Your task to perform on an android device: see creations saved in the google photos Image 0: 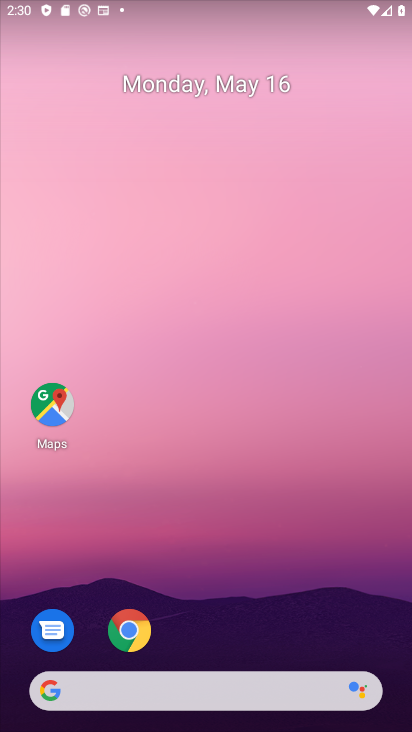
Step 0: drag from (233, 636) to (289, 22)
Your task to perform on an android device: see creations saved in the google photos Image 1: 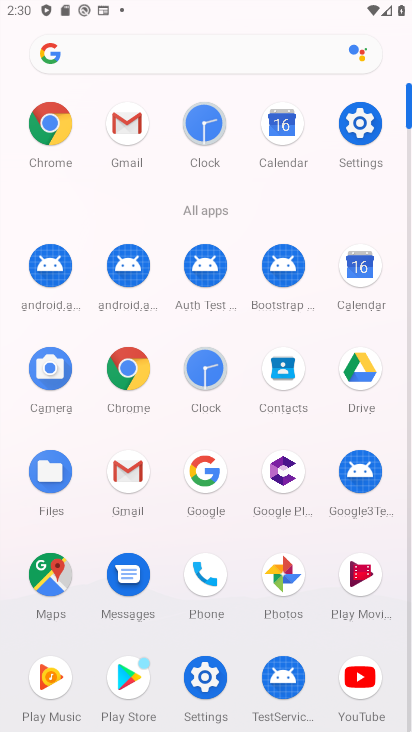
Step 1: click (277, 568)
Your task to perform on an android device: see creations saved in the google photos Image 2: 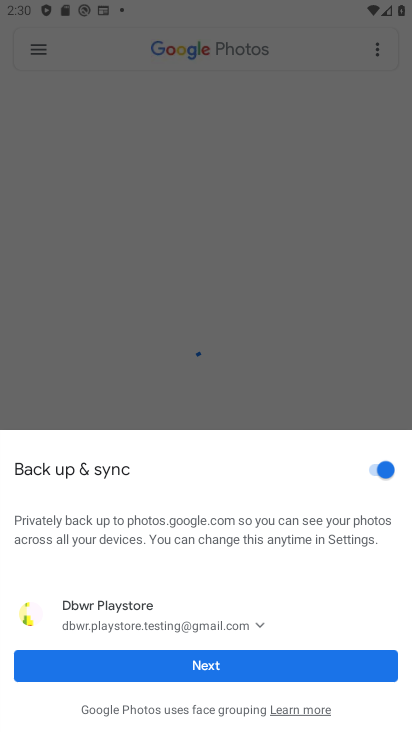
Step 2: click (198, 665)
Your task to perform on an android device: see creations saved in the google photos Image 3: 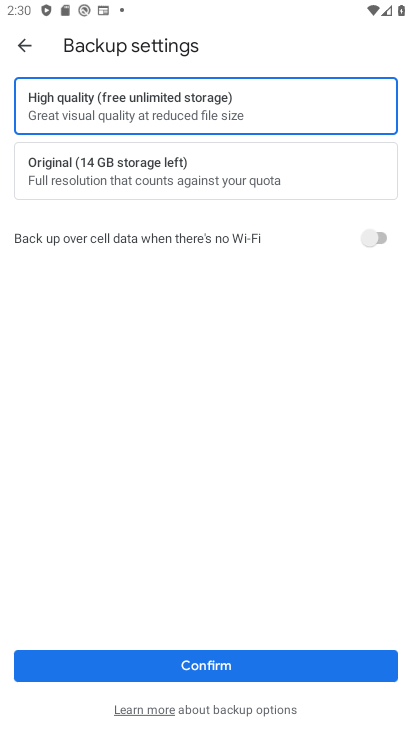
Step 3: click (224, 667)
Your task to perform on an android device: see creations saved in the google photos Image 4: 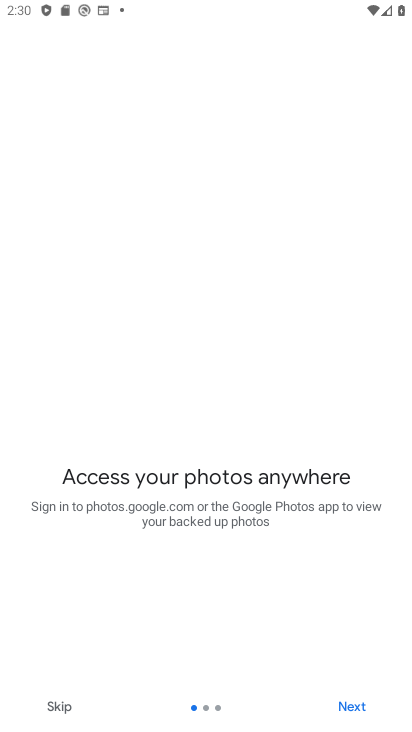
Step 4: click (355, 705)
Your task to perform on an android device: see creations saved in the google photos Image 5: 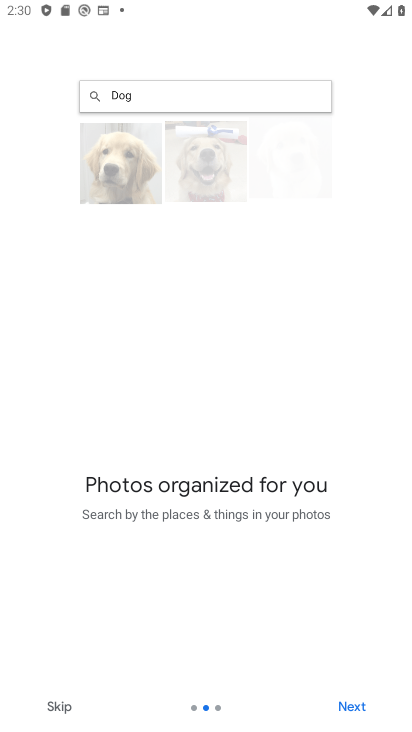
Step 5: click (355, 705)
Your task to perform on an android device: see creations saved in the google photos Image 6: 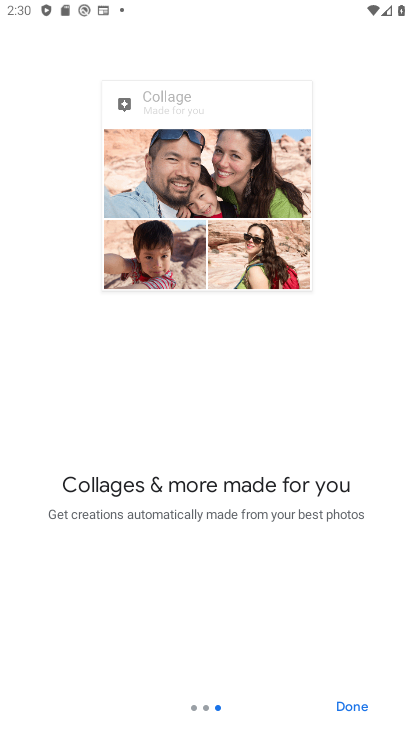
Step 6: click (350, 704)
Your task to perform on an android device: see creations saved in the google photos Image 7: 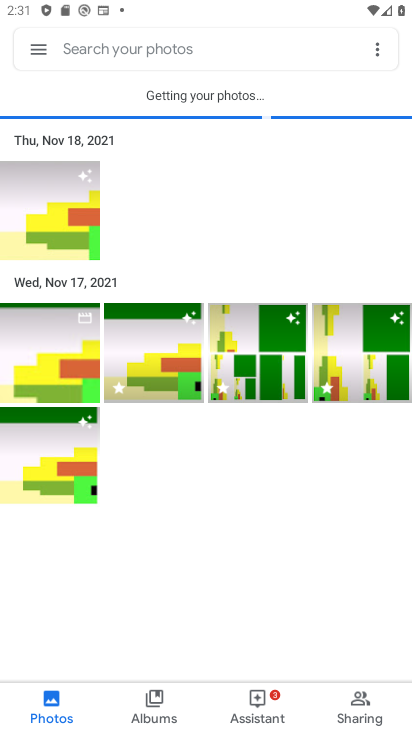
Step 7: click (123, 44)
Your task to perform on an android device: see creations saved in the google photos Image 8: 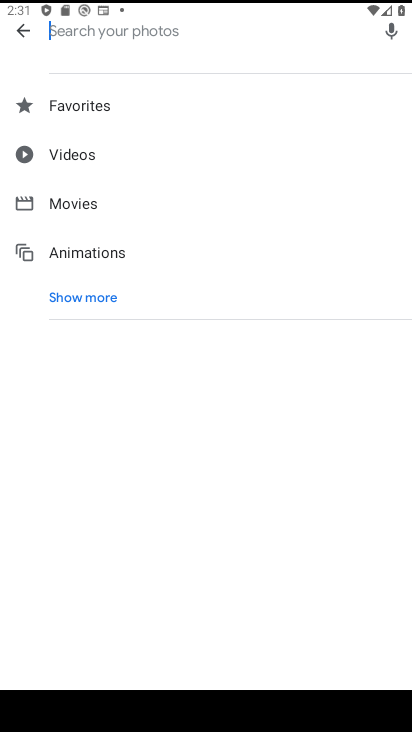
Step 8: click (100, 294)
Your task to perform on an android device: see creations saved in the google photos Image 9: 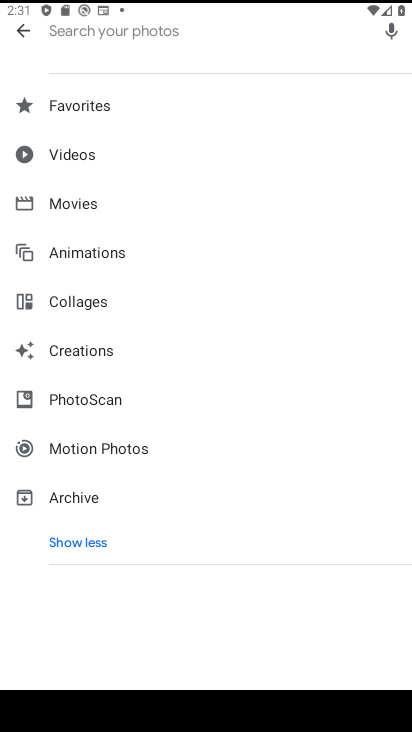
Step 9: click (82, 349)
Your task to perform on an android device: see creations saved in the google photos Image 10: 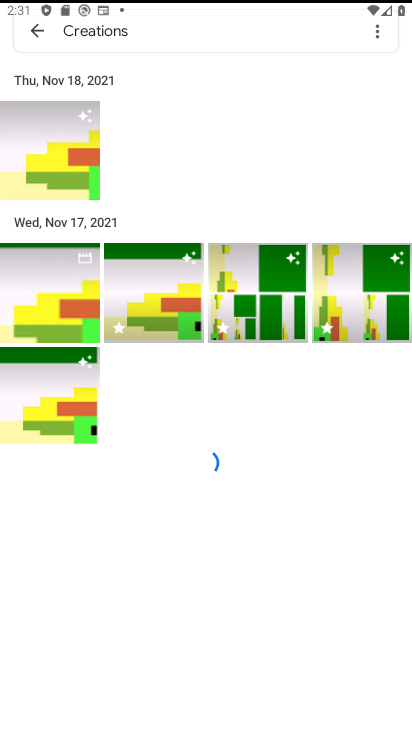
Step 10: task complete